Your task to perform on an android device: open app "Facebook Lite" Image 0: 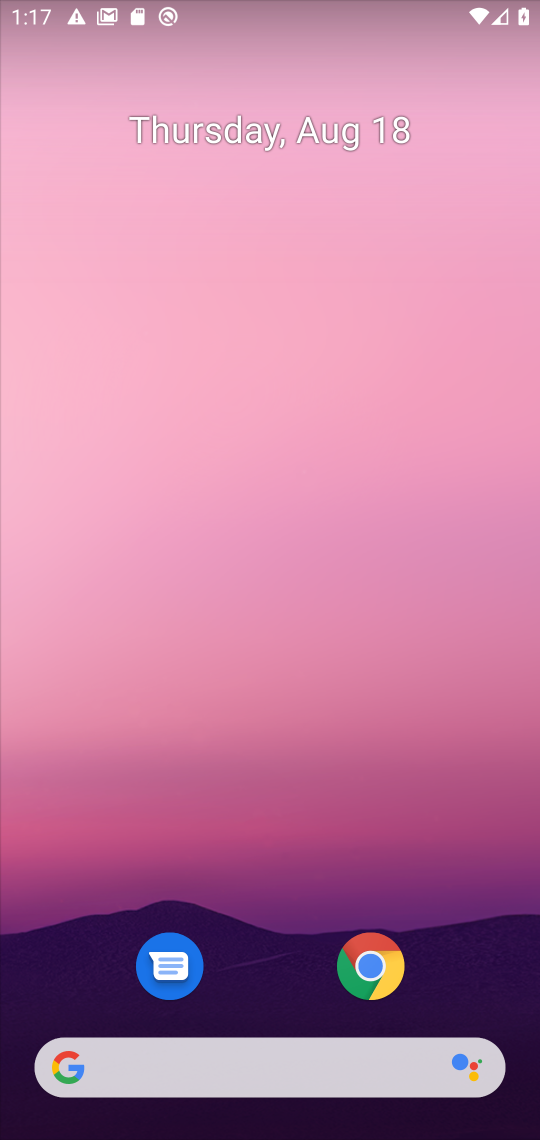
Step 0: drag from (266, 1017) to (244, 206)
Your task to perform on an android device: open app "Facebook Lite" Image 1: 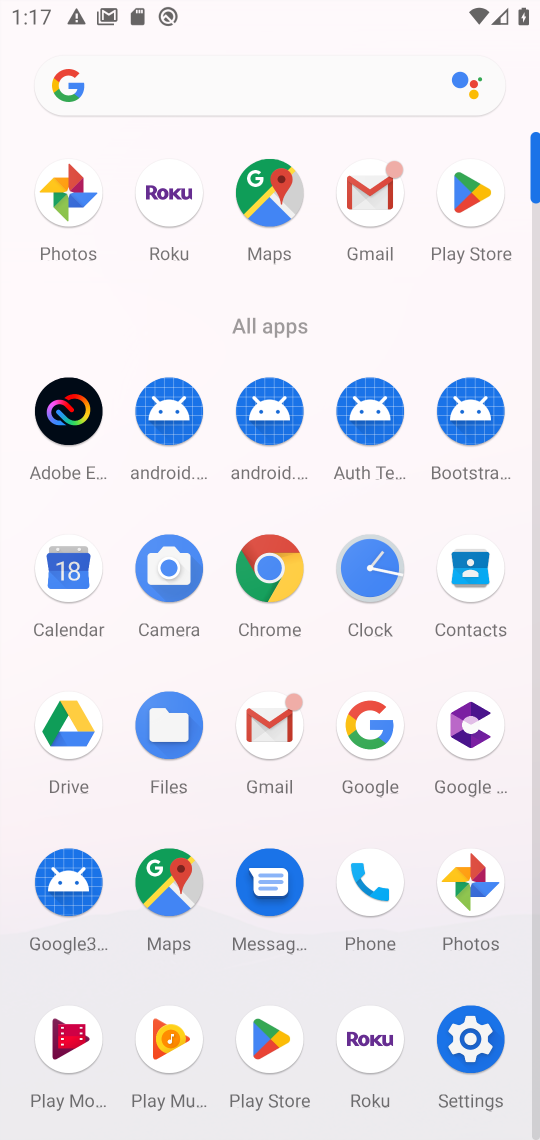
Step 1: click (258, 1037)
Your task to perform on an android device: open app "Facebook Lite" Image 2: 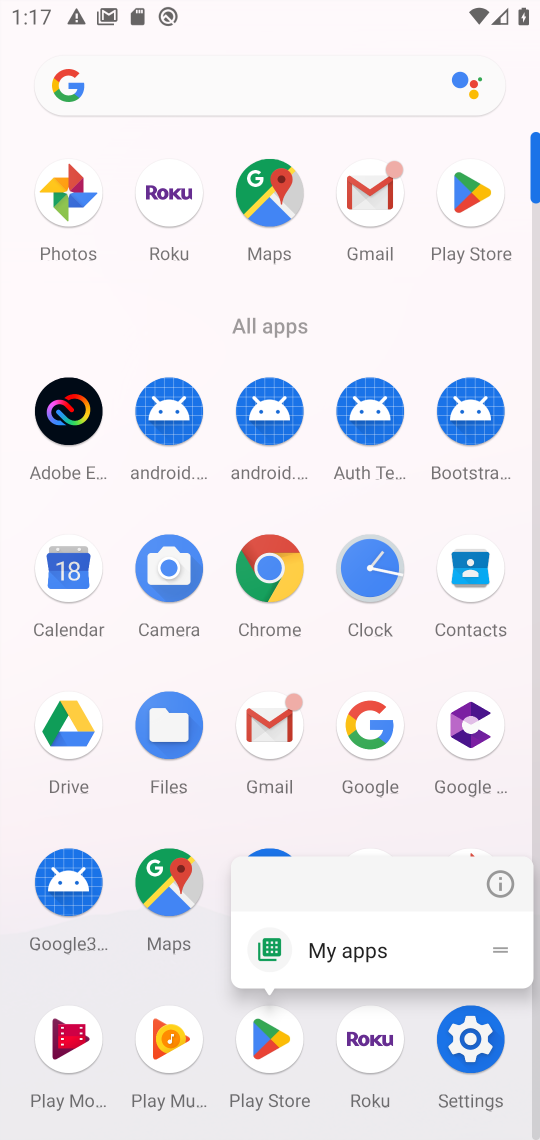
Step 2: click (258, 1037)
Your task to perform on an android device: open app "Facebook Lite" Image 3: 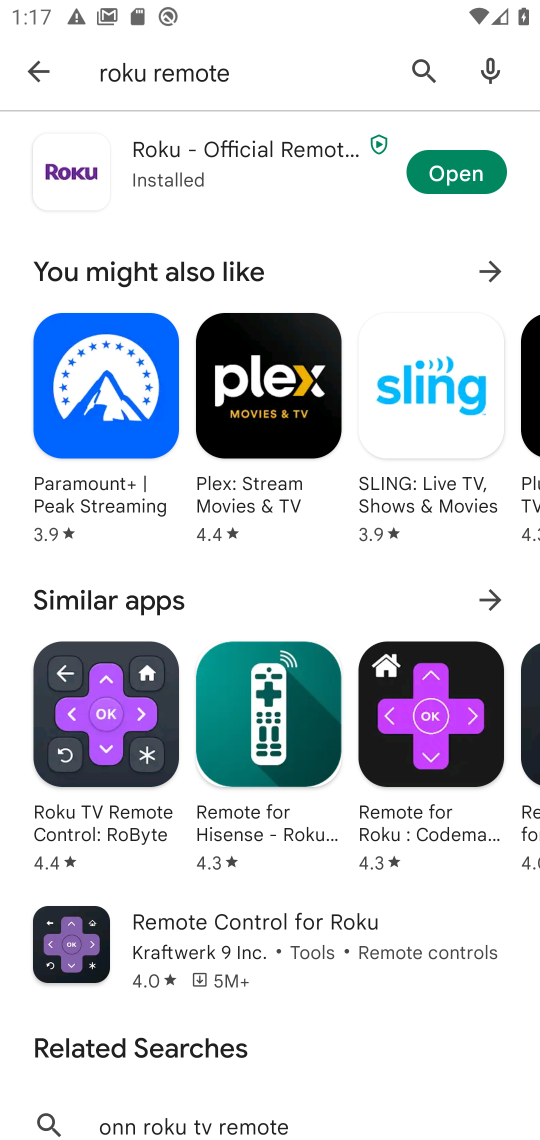
Step 3: click (23, 72)
Your task to perform on an android device: open app "Facebook Lite" Image 4: 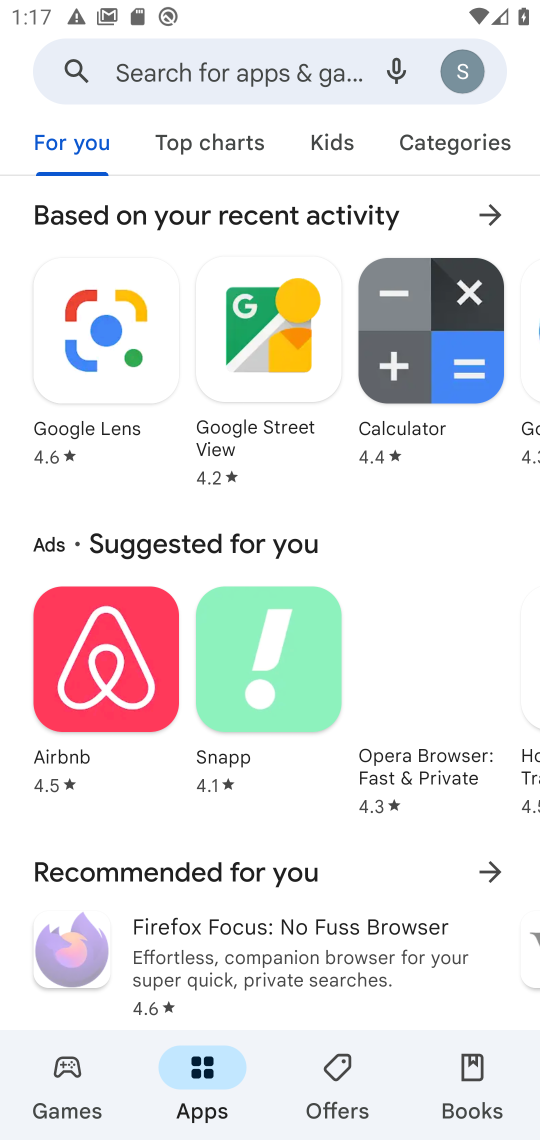
Step 4: click (197, 82)
Your task to perform on an android device: open app "Facebook Lite" Image 5: 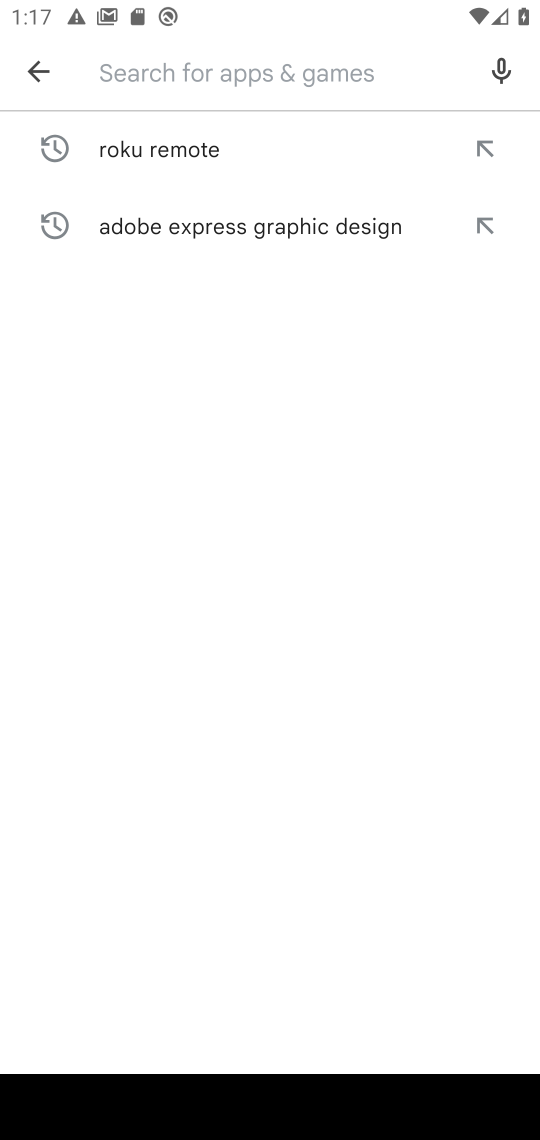
Step 5: type "Facebook Lite"
Your task to perform on an android device: open app "Facebook Lite" Image 6: 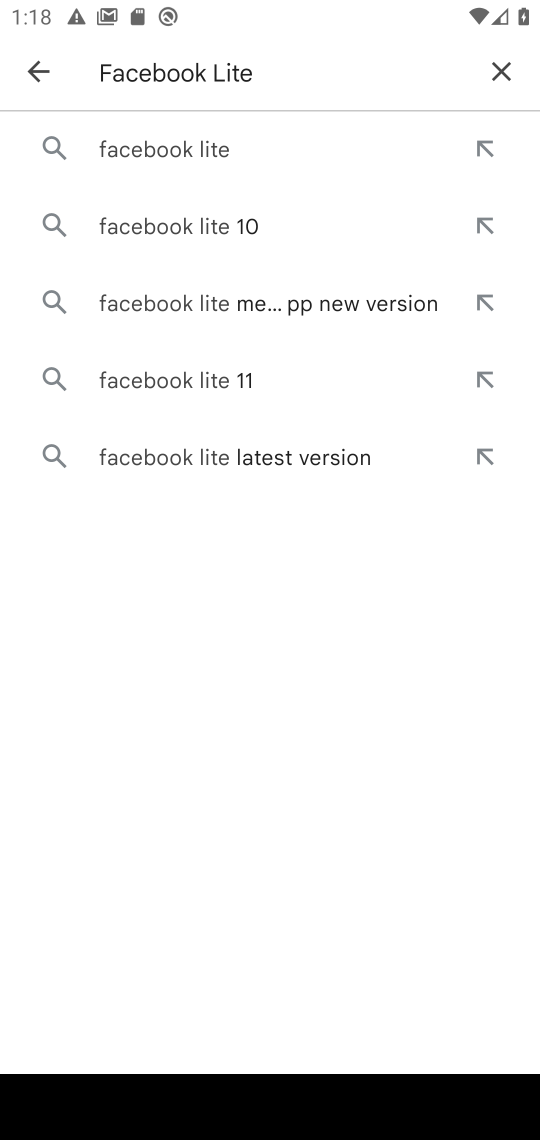
Step 6: click (155, 161)
Your task to perform on an android device: open app "Facebook Lite" Image 7: 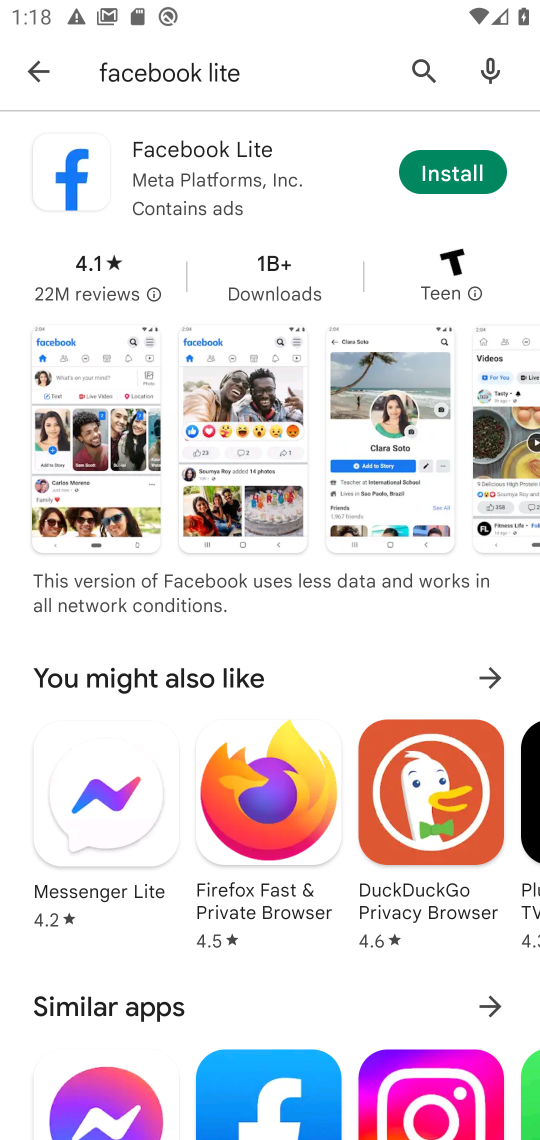
Step 7: task complete